Your task to perform on an android device: delete location history Image 0: 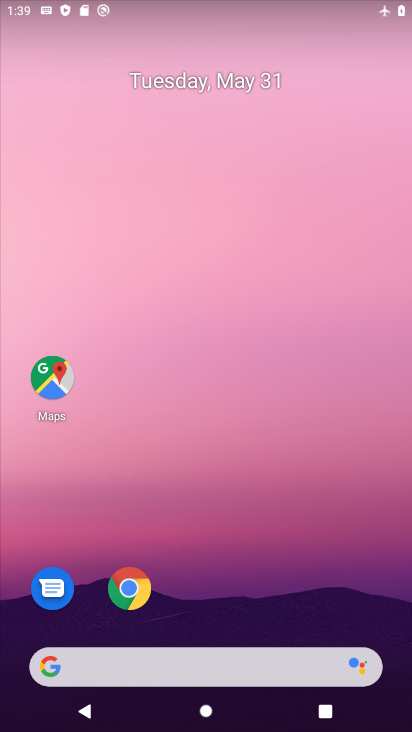
Step 0: drag from (239, 635) to (172, 136)
Your task to perform on an android device: delete location history Image 1: 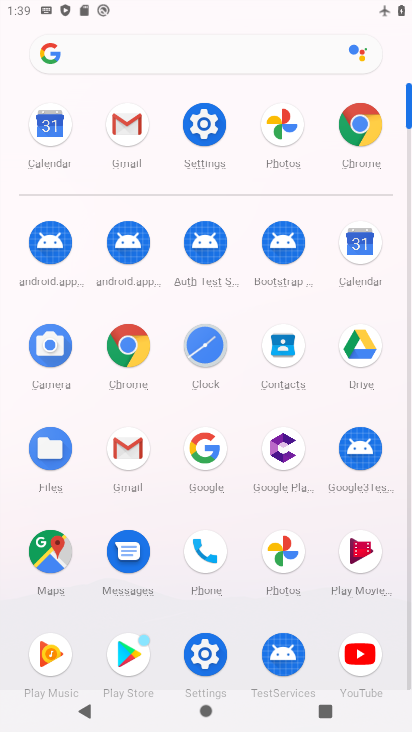
Step 1: click (48, 558)
Your task to perform on an android device: delete location history Image 2: 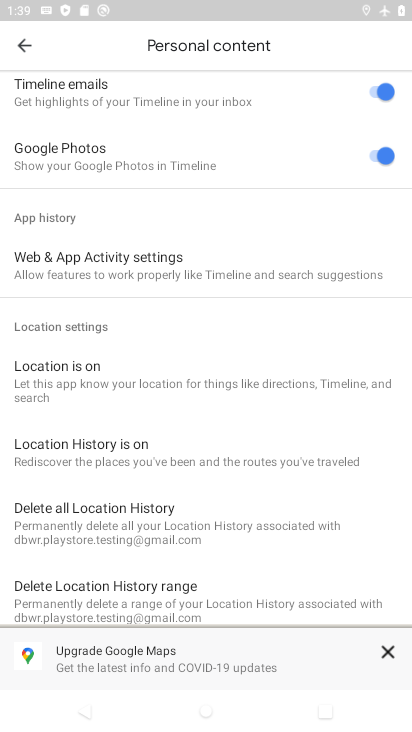
Step 2: click (93, 532)
Your task to perform on an android device: delete location history Image 3: 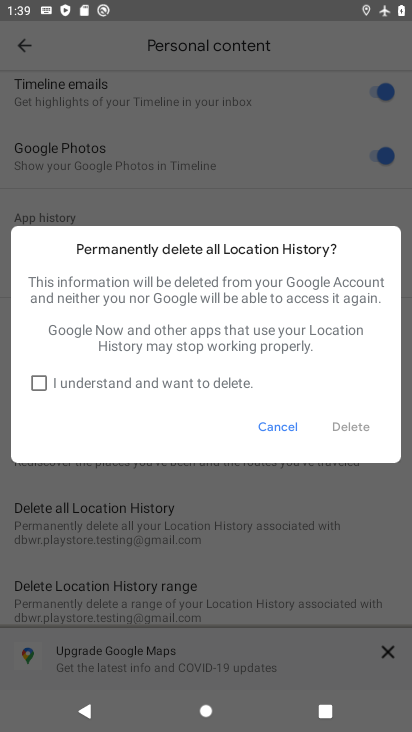
Step 3: click (163, 390)
Your task to perform on an android device: delete location history Image 4: 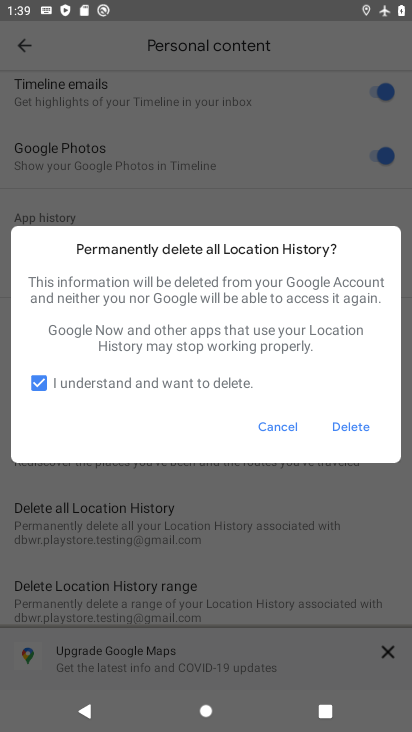
Step 4: click (364, 438)
Your task to perform on an android device: delete location history Image 5: 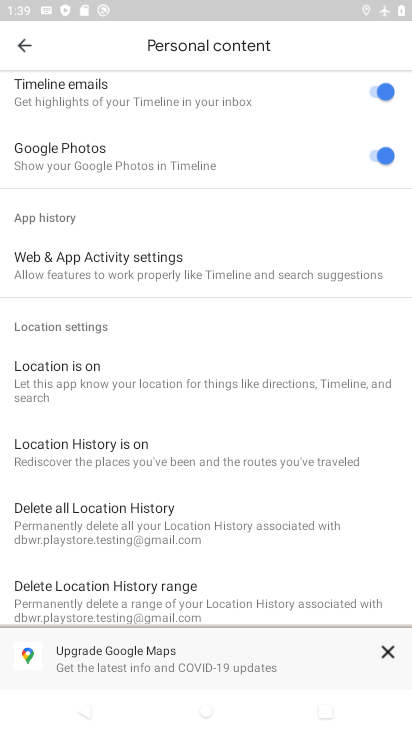
Step 5: task complete